Your task to perform on an android device: Open the calendar and show me this week's events? Image 0: 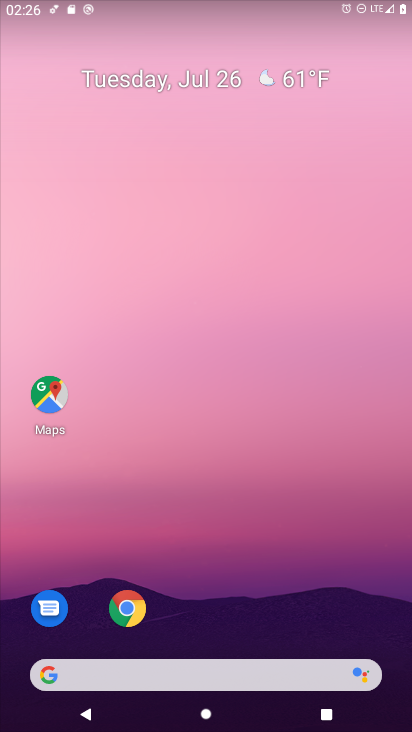
Step 0: drag from (200, 327) to (274, 175)
Your task to perform on an android device: Open the calendar and show me this week's events? Image 1: 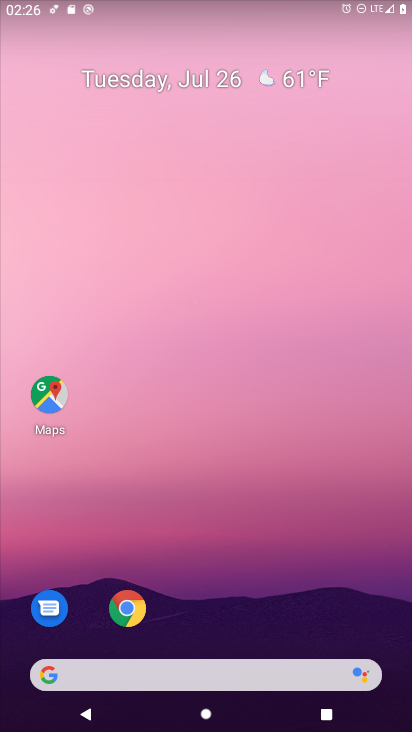
Step 1: drag from (97, 427) to (327, 118)
Your task to perform on an android device: Open the calendar and show me this week's events? Image 2: 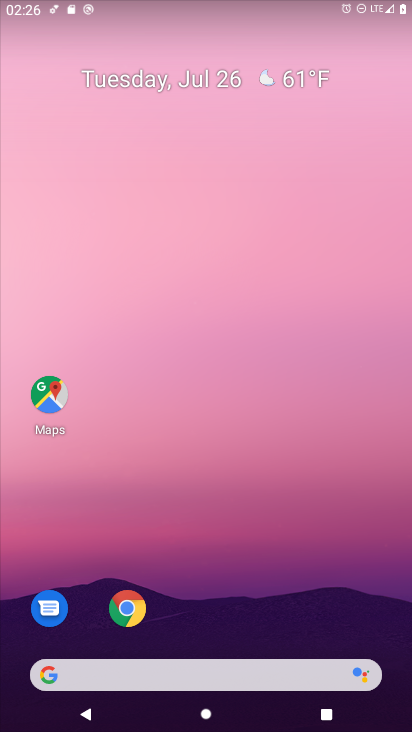
Step 2: drag from (12, 624) to (336, 103)
Your task to perform on an android device: Open the calendar and show me this week's events? Image 3: 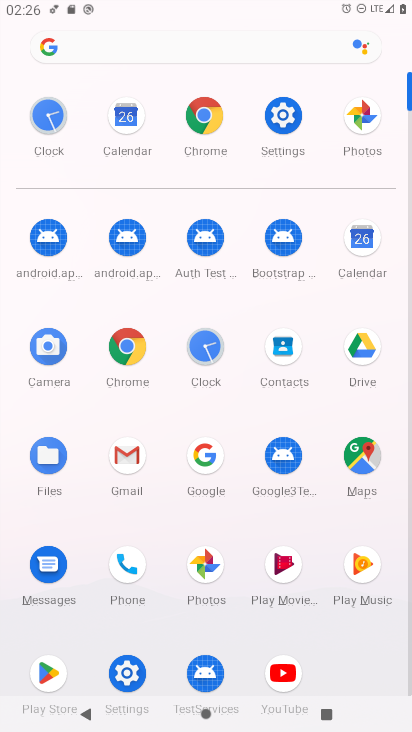
Step 3: click (378, 237)
Your task to perform on an android device: Open the calendar and show me this week's events? Image 4: 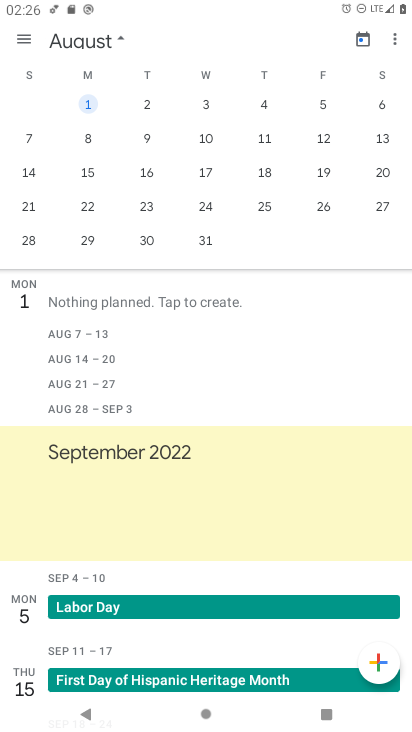
Step 4: task complete